Your task to perform on an android device: Open the map Image 0: 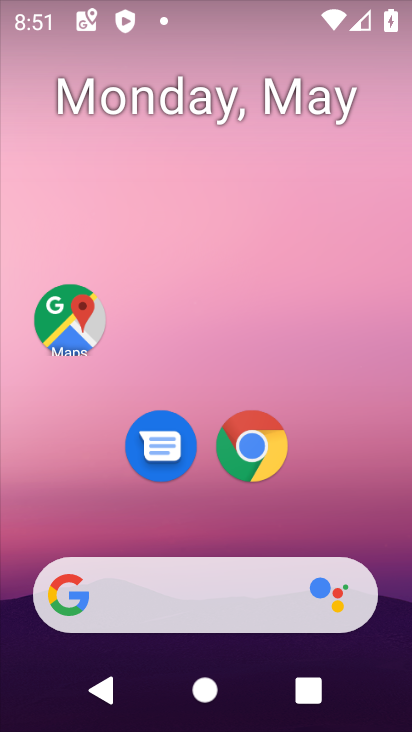
Step 0: press home button
Your task to perform on an android device: Open the map Image 1: 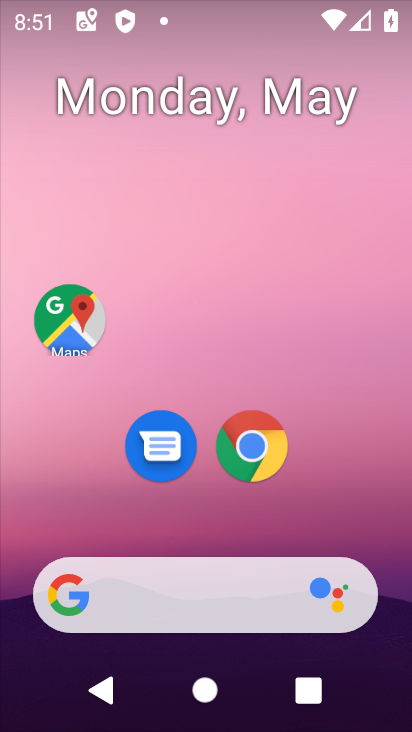
Step 1: click (72, 312)
Your task to perform on an android device: Open the map Image 2: 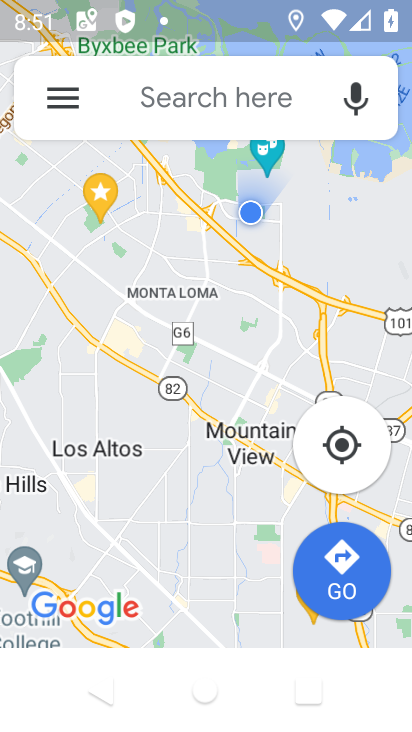
Step 2: task complete